Your task to perform on an android device: turn off improve location accuracy Image 0: 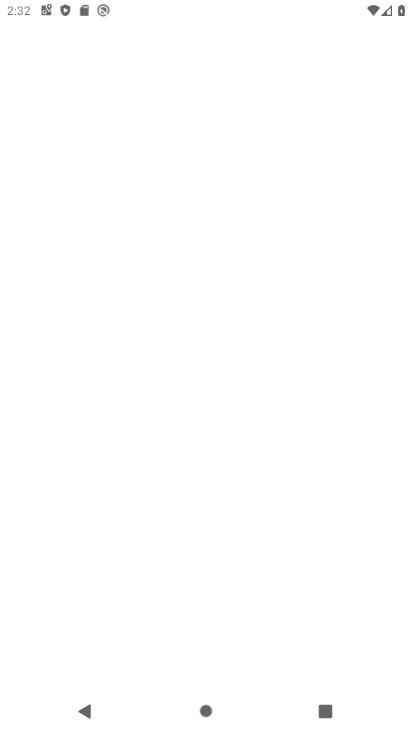
Step 0: press back button
Your task to perform on an android device: turn off improve location accuracy Image 1: 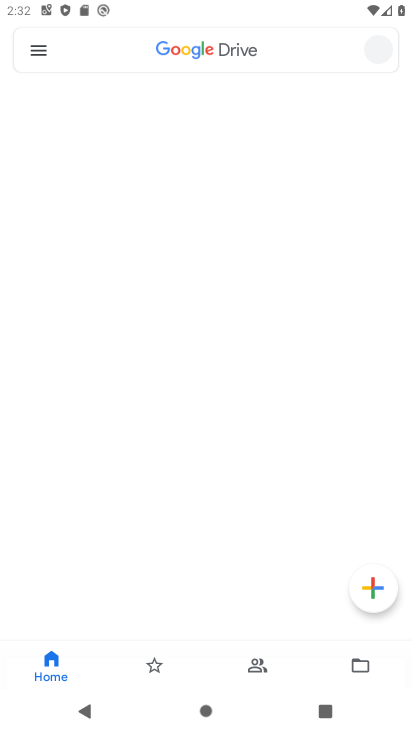
Step 1: press back button
Your task to perform on an android device: turn off improve location accuracy Image 2: 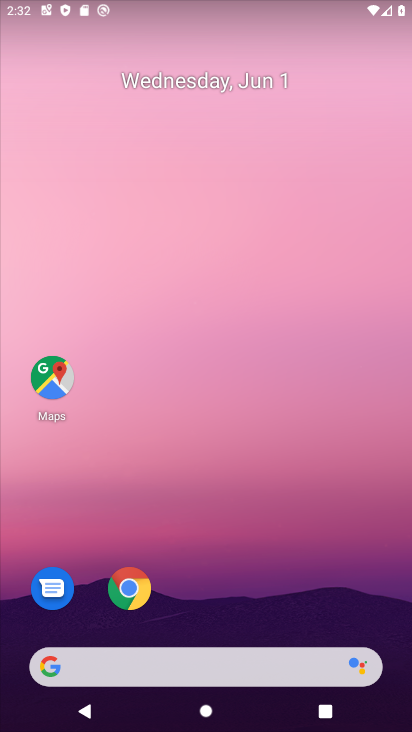
Step 2: drag from (197, 618) to (225, 132)
Your task to perform on an android device: turn off improve location accuracy Image 3: 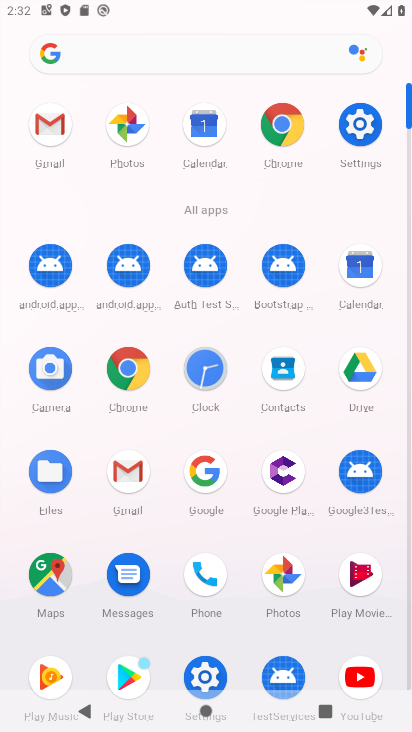
Step 3: click (354, 135)
Your task to perform on an android device: turn off improve location accuracy Image 4: 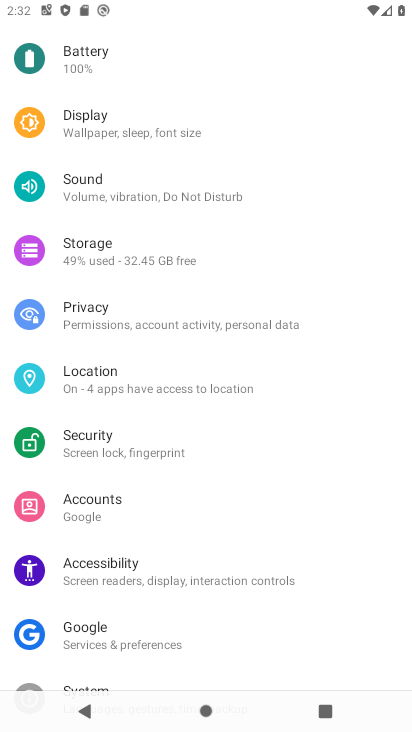
Step 4: click (80, 397)
Your task to perform on an android device: turn off improve location accuracy Image 5: 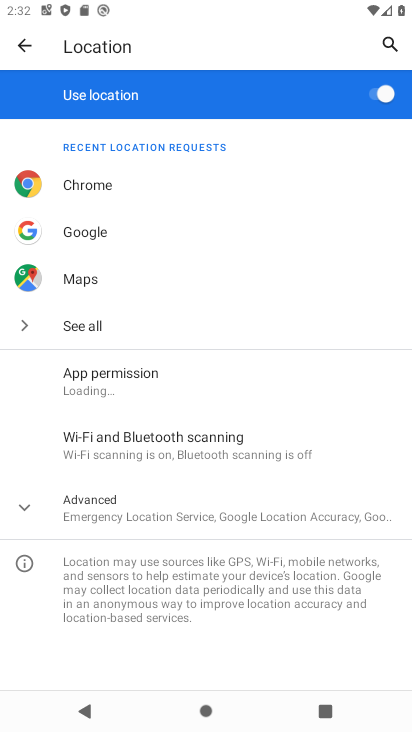
Step 5: click (81, 507)
Your task to perform on an android device: turn off improve location accuracy Image 6: 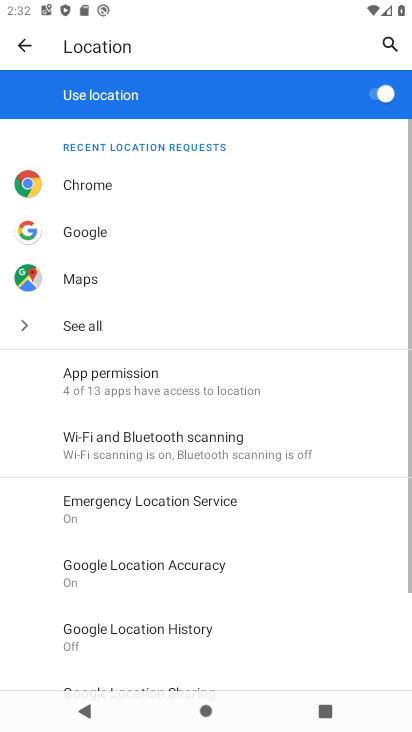
Step 6: click (150, 579)
Your task to perform on an android device: turn off improve location accuracy Image 7: 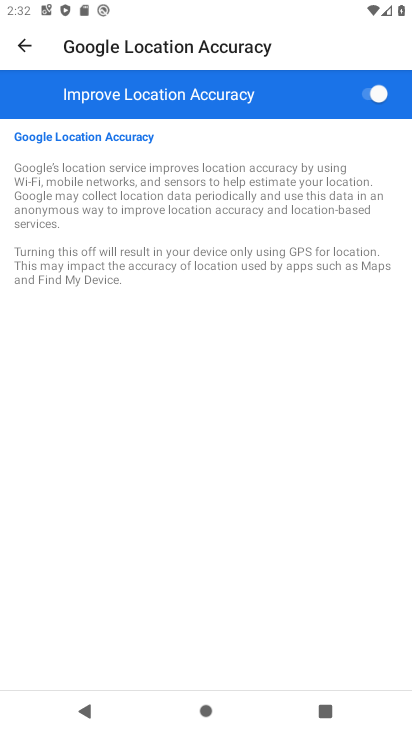
Step 7: click (373, 93)
Your task to perform on an android device: turn off improve location accuracy Image 8: 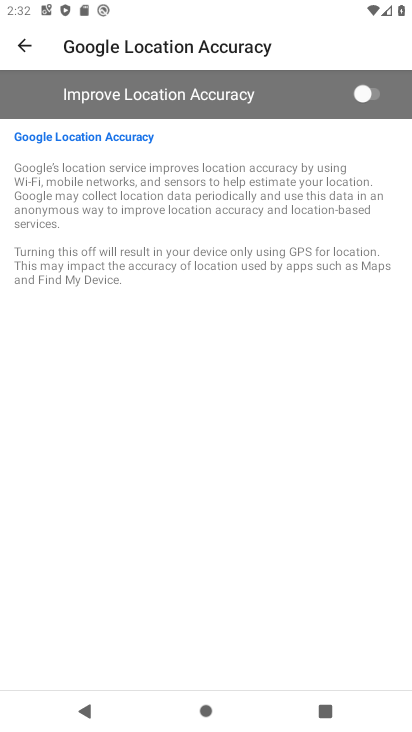
Step 8: task complete